Your task to perform on an android device: add a contact in the contacts app Image 0: 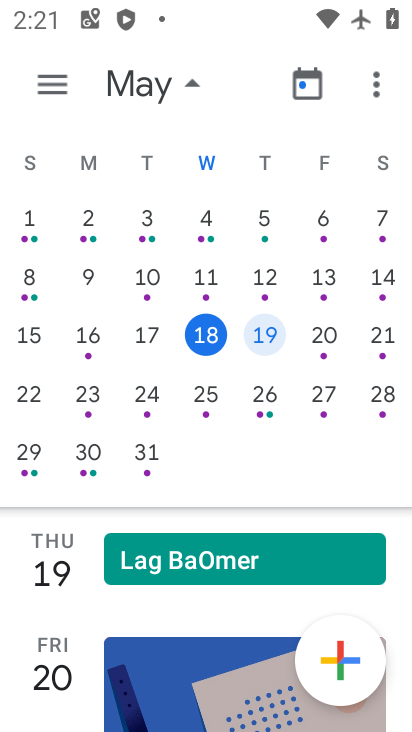
Step 0: press home button
Your task to perform on an android device: add a contact in the contacts app Image 1: 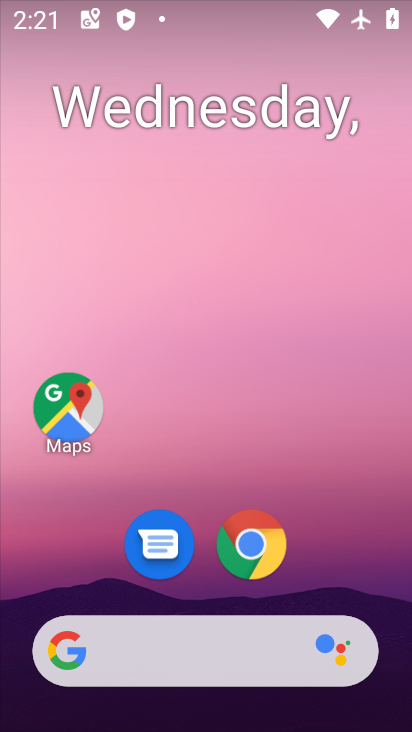
Step 1: drag from (341, 546) to (389, 10)
Your task to perform on an android device: add a contact in the contacts app Image 2: 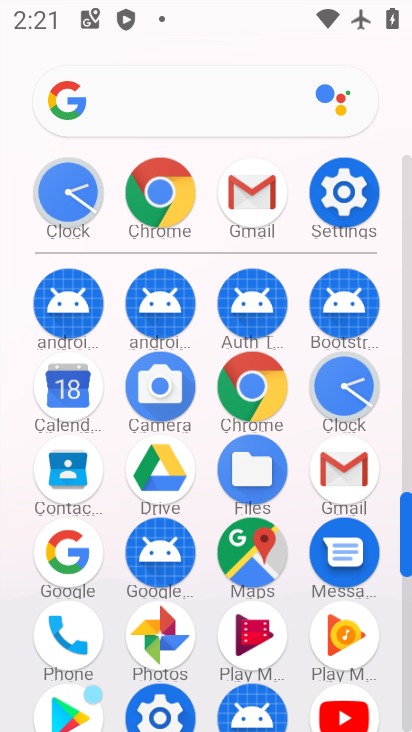
Step 2: drag from (406, 559) to (402, 696)
Your task to perform on an android device: add a contact in the contacts app Image 3: 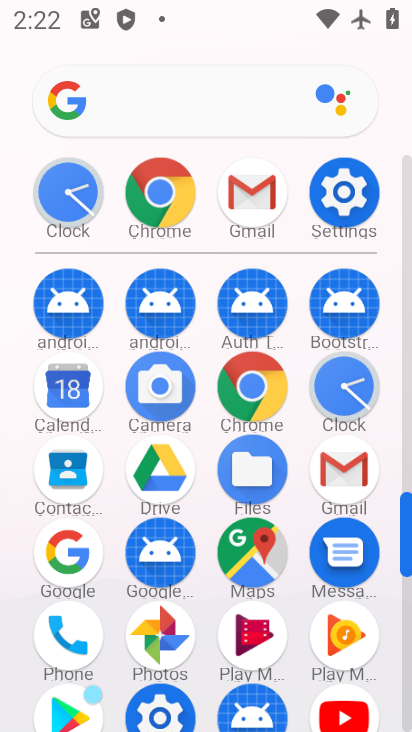
Step 3: click (78, 490)
Your task to perform on an android device: add a contact in the contacts app Image 4: 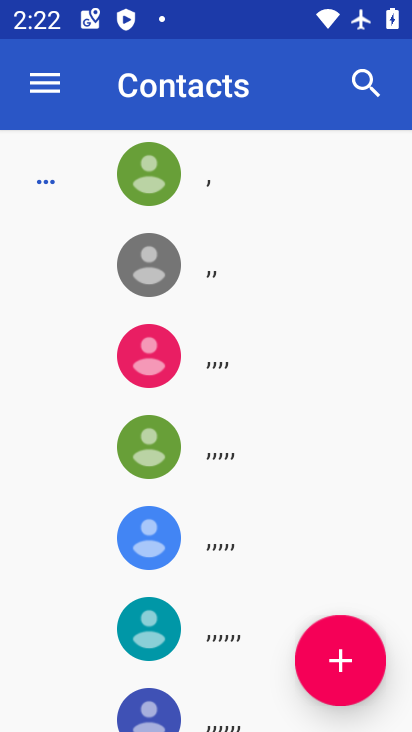
Step 4: click (345, 687)
Your task to perform on an android device: add a contact in the contacts app Image 5: 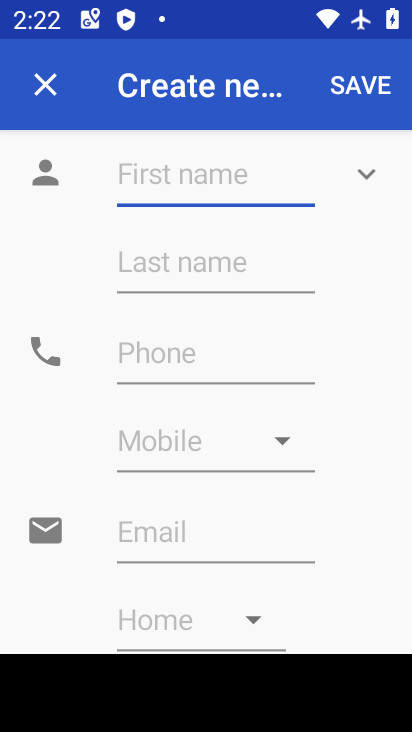
Step 5: type "adas"
Your task to perform on an android device: add a contact in the contacts app Image 6: 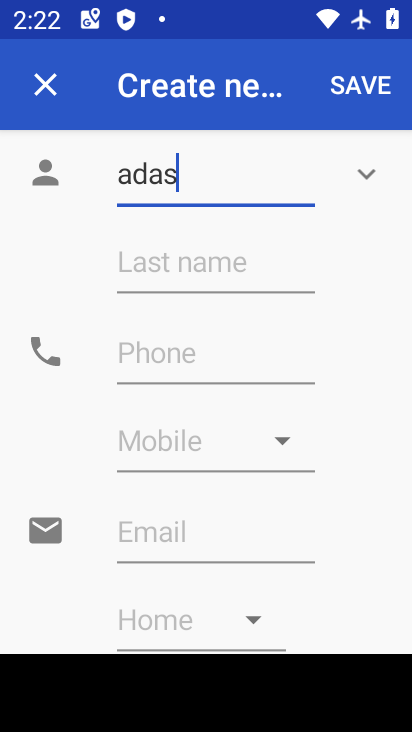
Step 6: click (261, 275)
Your task to perform on an android device: add a contact in the contacts app Image 7: 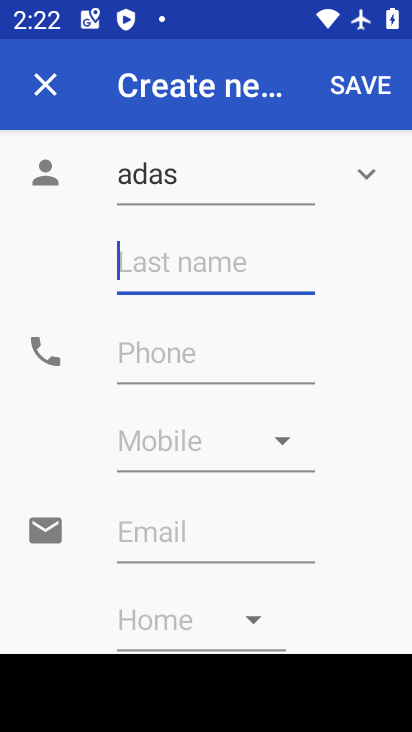
Step 7: type "adasd"
Your task to perform on an android device: add a contact in the contacts app Image 8: 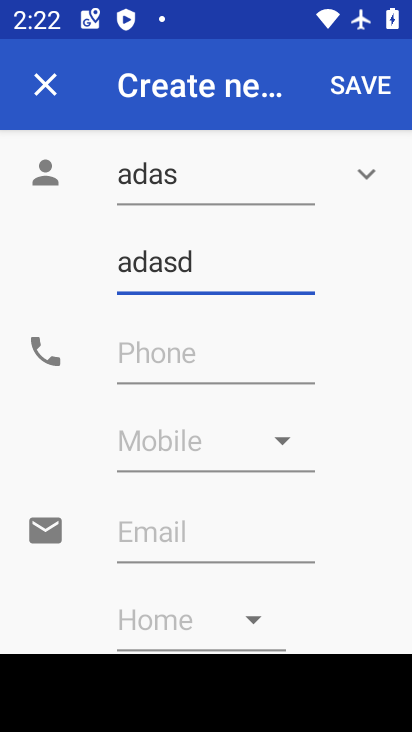
Step 8: click (263, 351)
Your task to perform on an android device: add a contact in the contacts app Image 9: 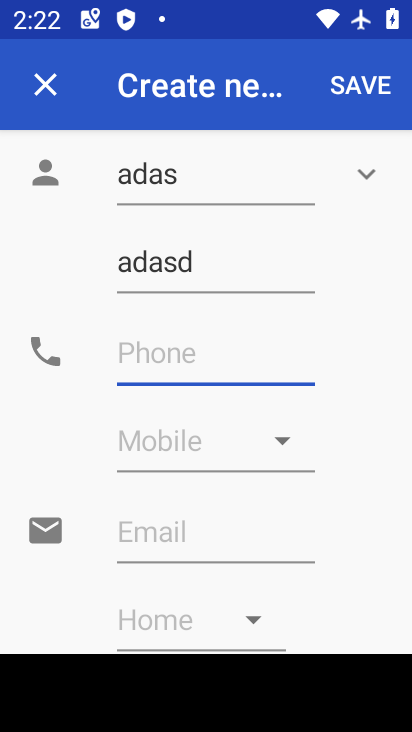
Step 9: type "342342343"
Your task to perform on an android device: add a contact in the contacts app Image 10: 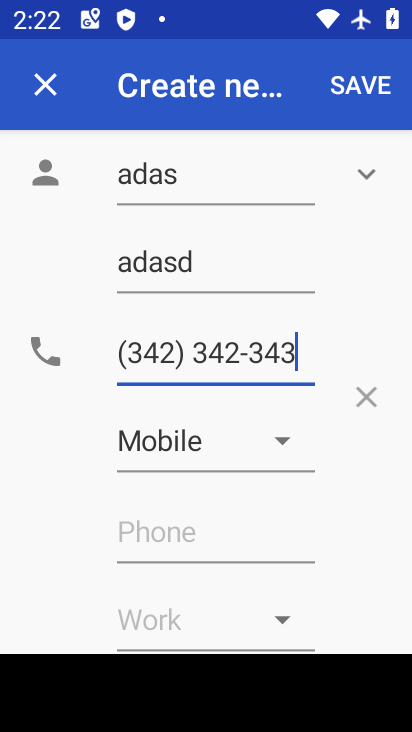
Step 10: click (383, 98)
Your task to perform on an android device: add a contact in the contacts app Image 11: 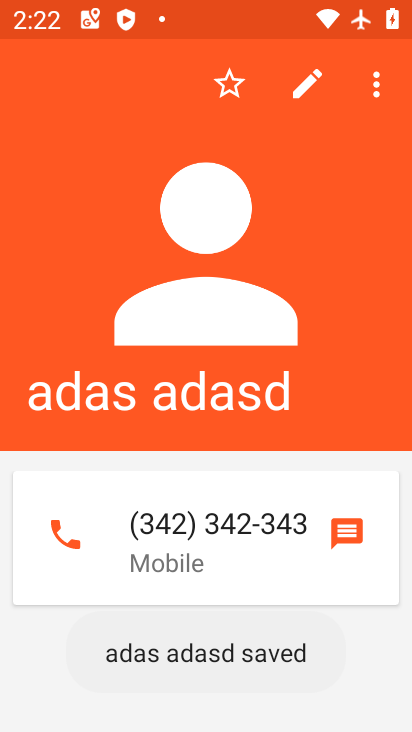
Step 11: task complete